Your task to perform on an android device: Do I have any events this weekend? Image 0: 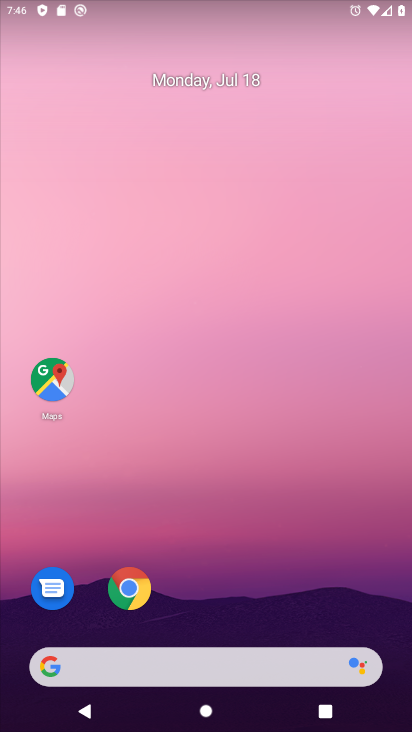
Step 0: drag from (214, 655) to (215, 229)
Your task to perform on an android device: Do I have any events this weekend? Image 1: 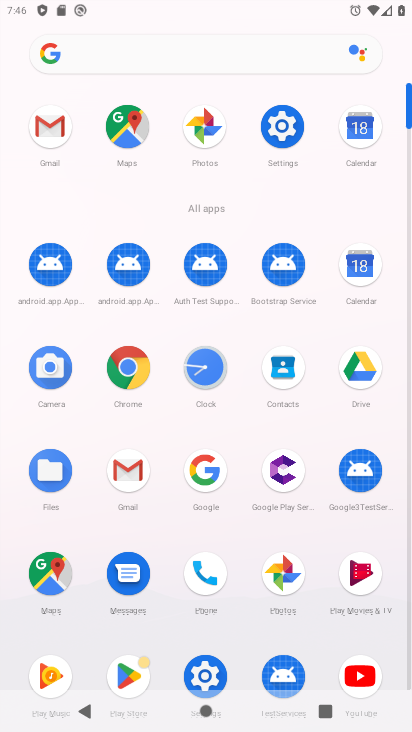
Step 1: click (367, 264)
Your task to perform on an android device: Do I have any events this weekend? Image 2: 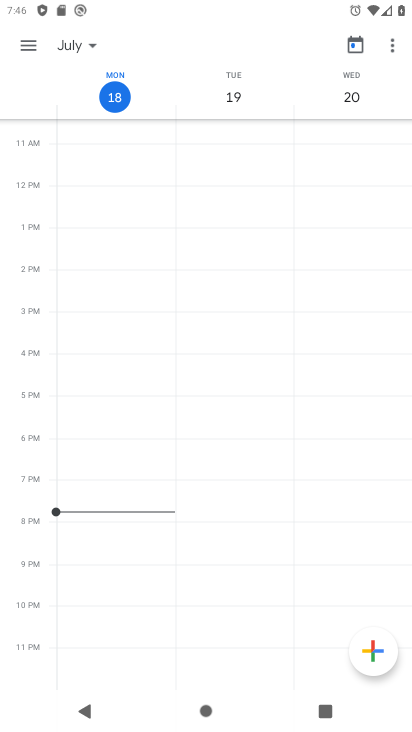
Step 2: click (19, 50)
Your task to perform on an android device: Do I have any events this weekend? Image 3: 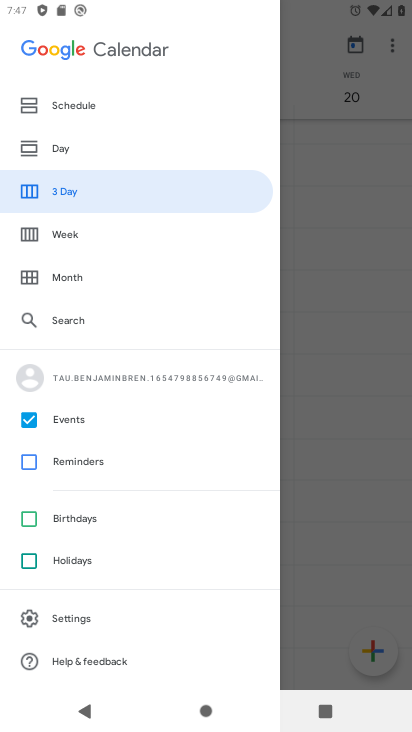
Step 3: click (69, 244)
Your task to perform on an android device: Do I have any events this weekend? Image 4: 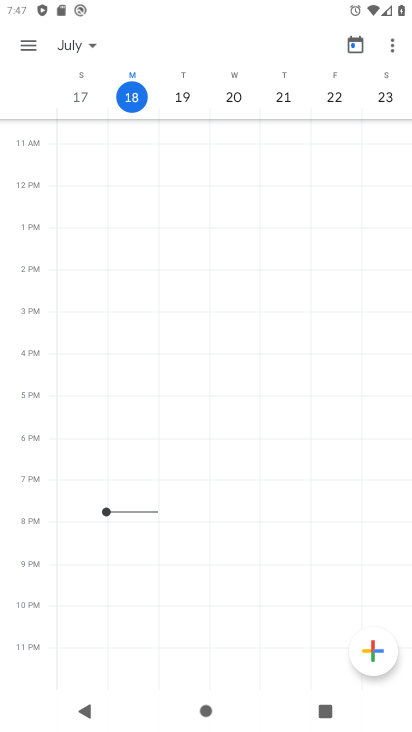
Step 4: task complete